Your task to perform on an android device: Open my contact list Image 0: 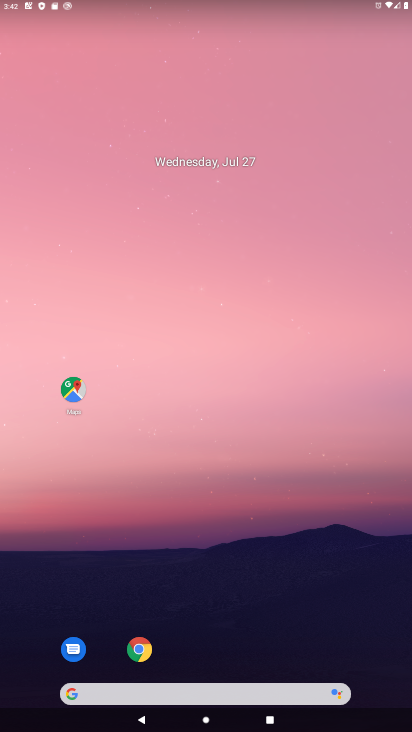
Step 0: drag from (389, 675) to (331, 159)
Your task to perform on an android device: Open my contact list Image 1: 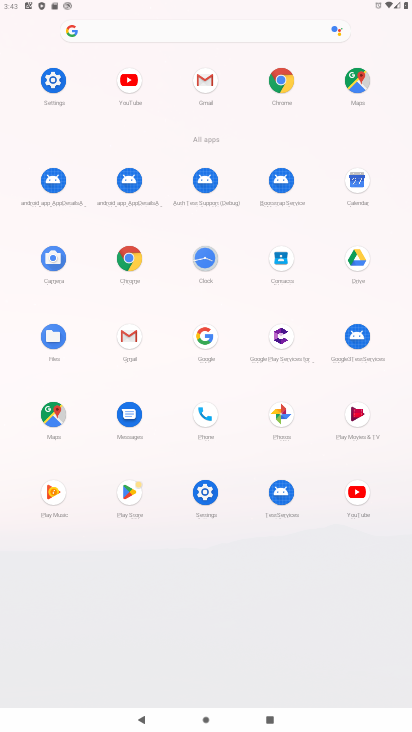
Step 1: click (280, 260)
Your task to perform on an android device: Open my contact list Image 2: 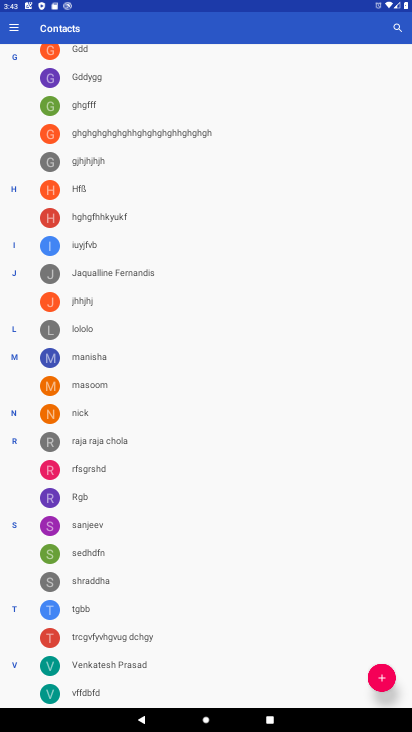
Step 2: task complete